Your task to perform on an android device: turn off wifi Image 0: 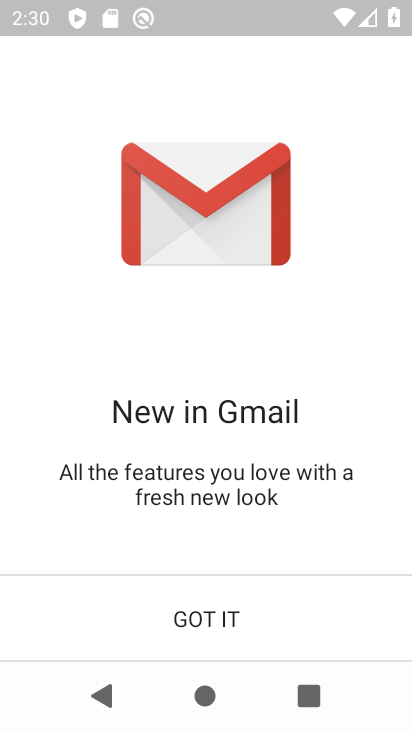
Step 0: press home button
Your task to perform on an android device: turn off wifi Image 1: 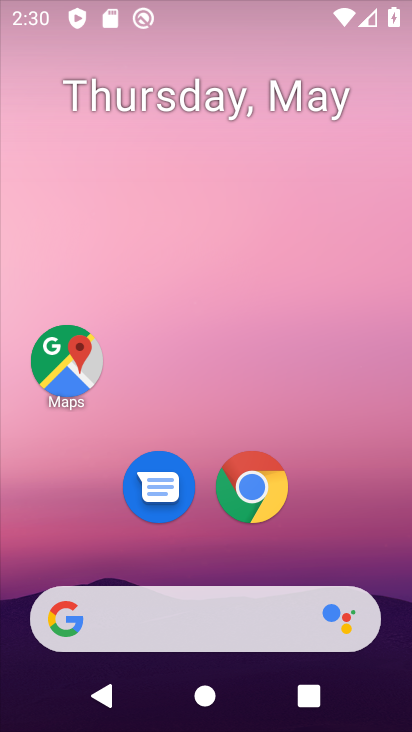
Step 1: drag from (264, 590) to (367, 211)
Your task to perform on an android device: turn off wifi Image 2: 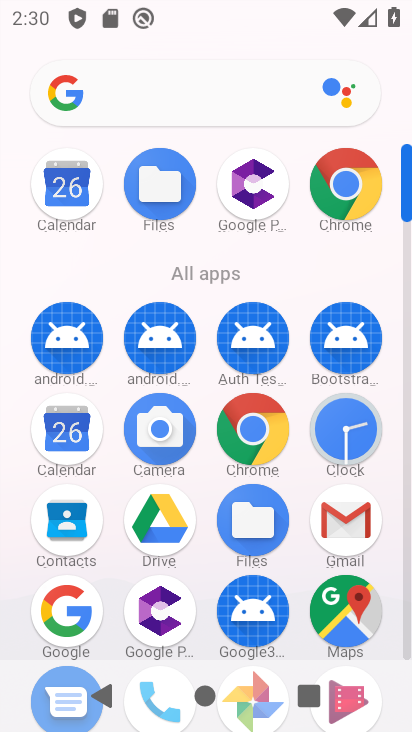
Step 2: drag from (213, 515) to (309, 233)
Your task to perform on an android device: turn off wifi Image 3: 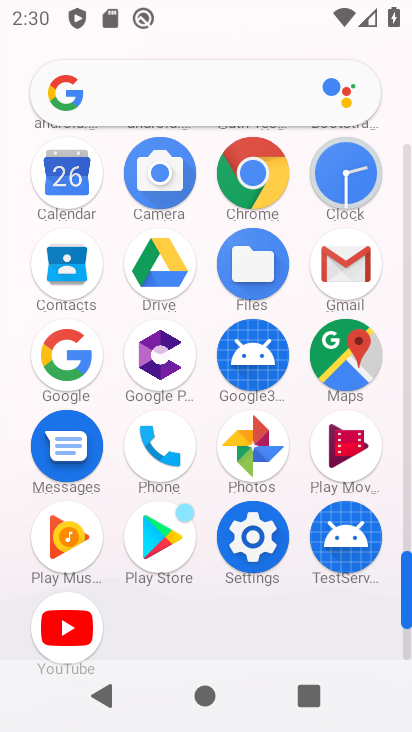
Step 3: click (254, 558)
Your task to perform on an android device: turn off wifi Image 4: 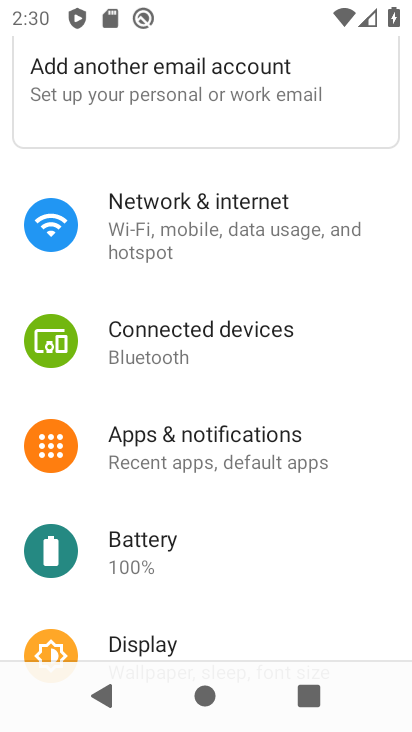
Step 4: click (255, 242)
Your task to perform on an android device: turn off wifi Image 5: 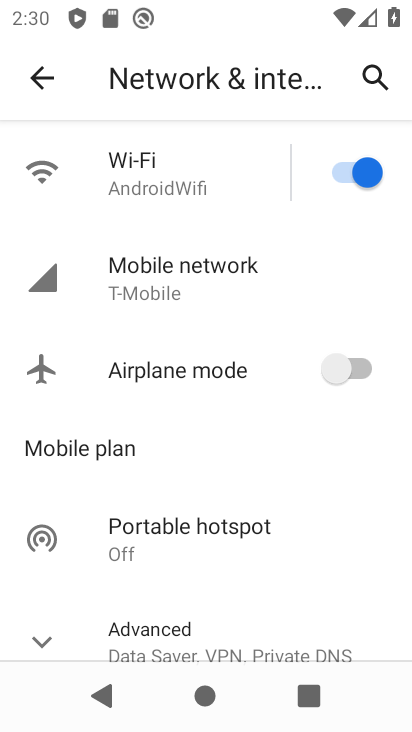
Step 5: click (351, 176)
Your task to perform on an android device: turn off wifi Image 6: 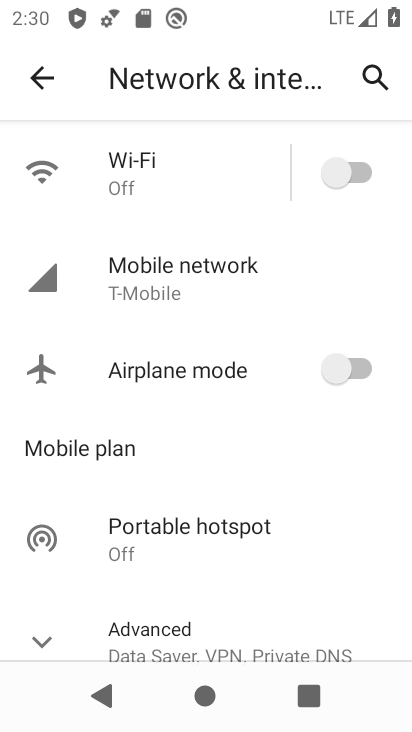
Step 6: task complete